Your task to perform on an android device: Open the calendar app, open the side menu, and click the "Day" option Image 0: 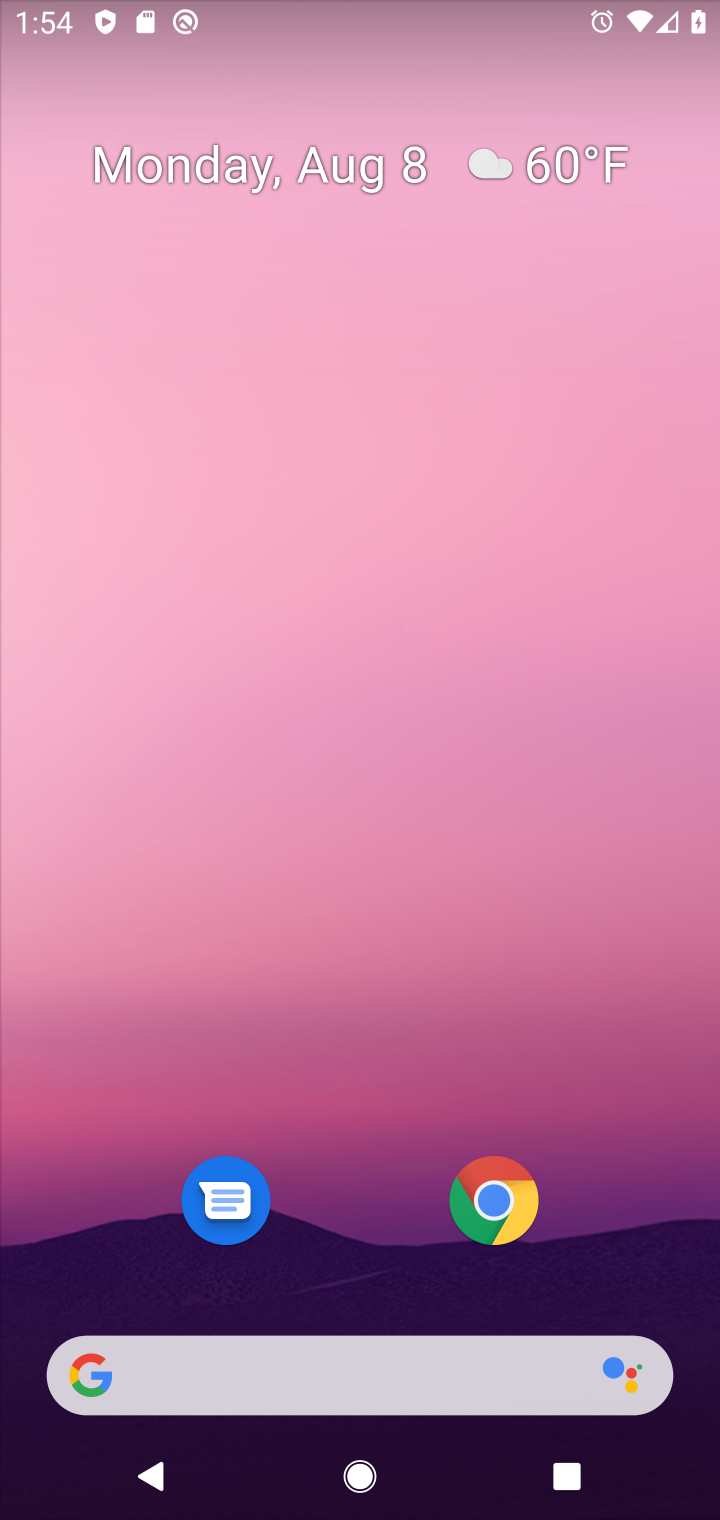
Step 0: press home button
Your task to perform on an android device: Open the calendar app, open the side menu, and click the "Day" option Image 1: 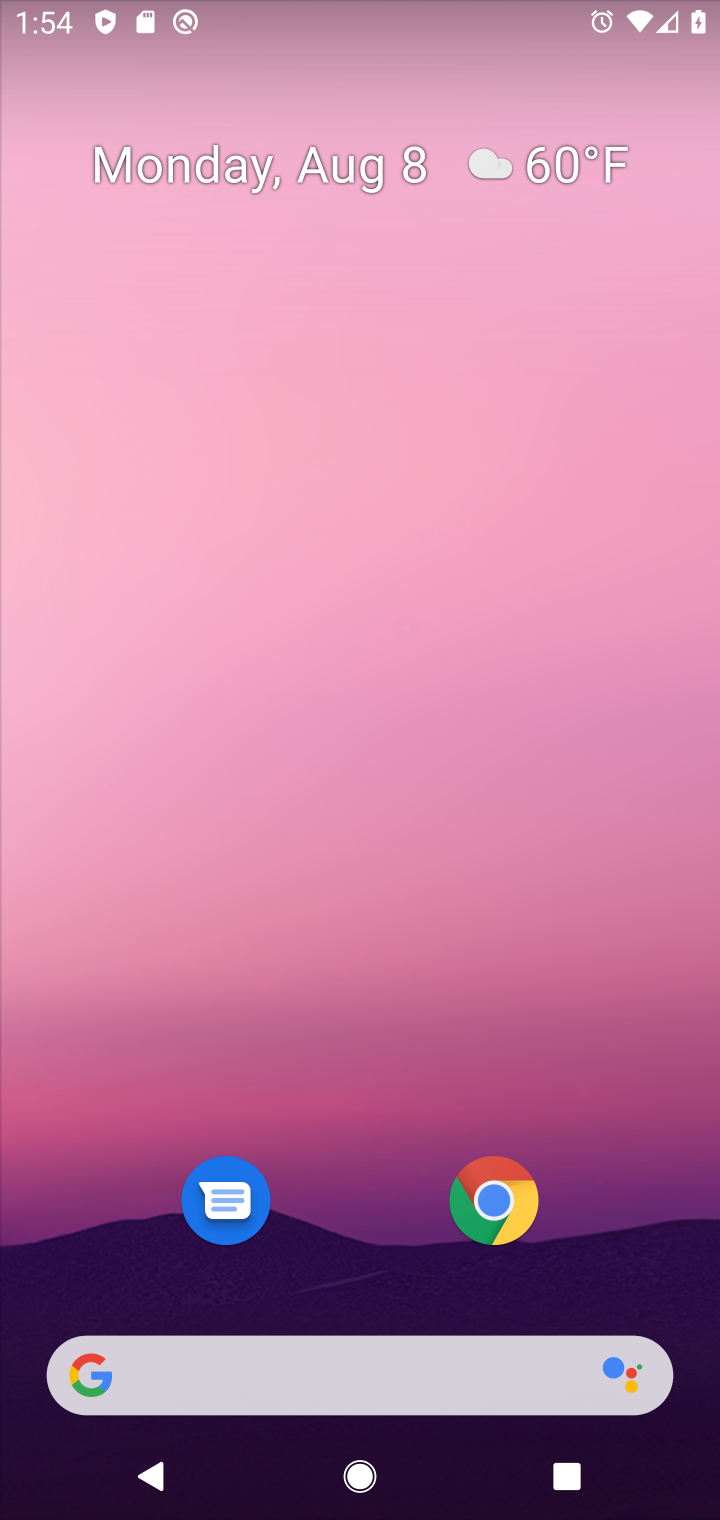
Step 1: drag from (365, 1263) to (447, 320)
Your task to perform on an android device: Open the calendar app, open the side menu, and click the "Day" option Image 2: 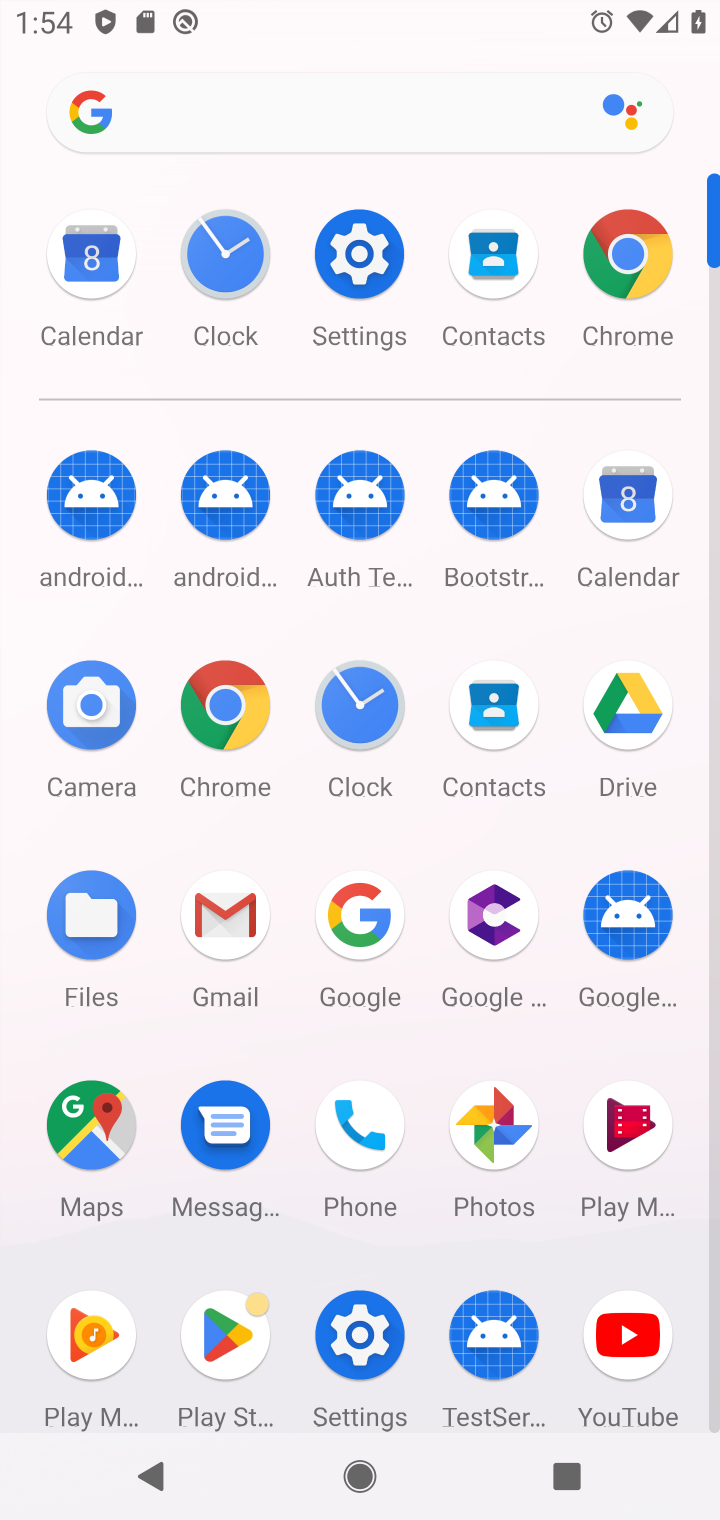
Step 2: click (615, 491)
Your task to perform on an android device: Open the calendar app, open the side menu, and click the "Day" option Image 3: 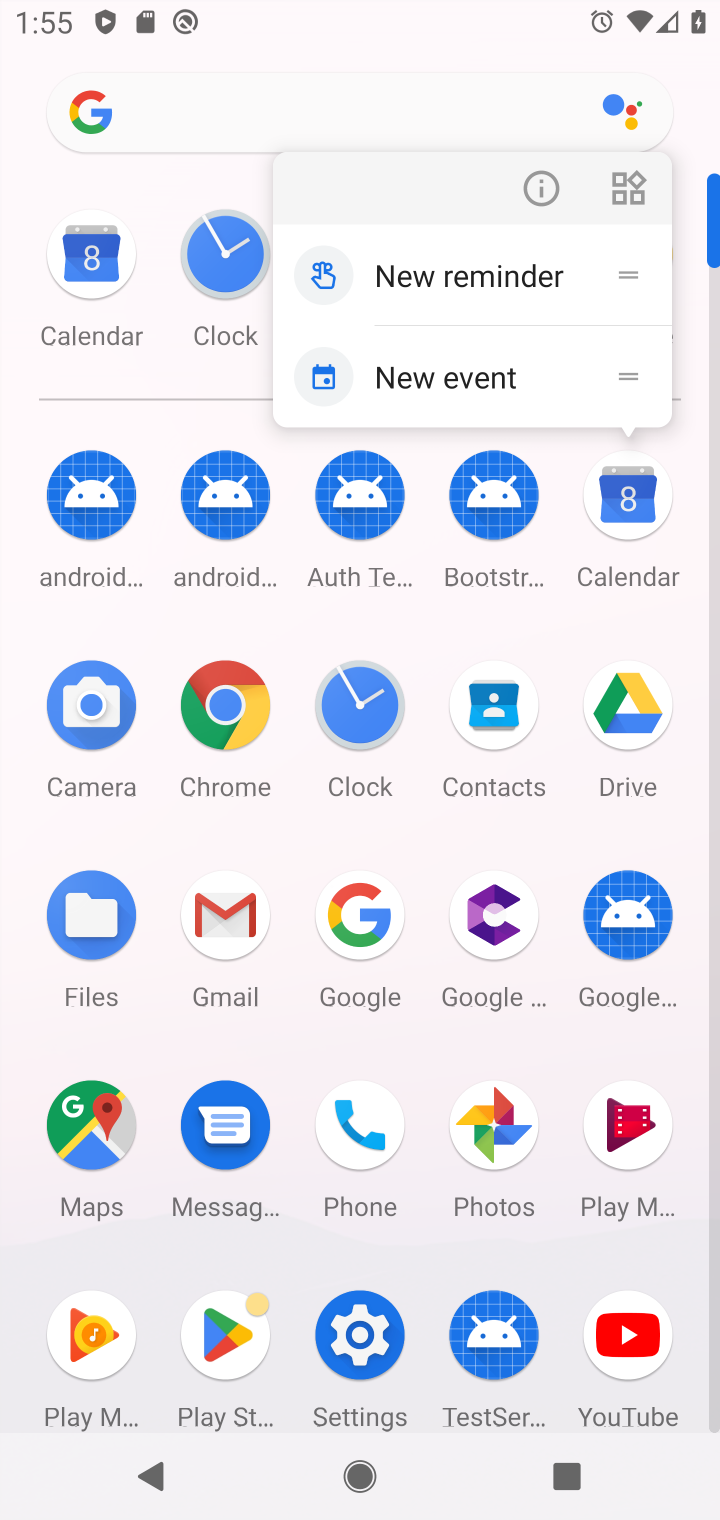
Step 3: click (625, 499)
Your task to perform on an android device: Open the calendar app, open the side menu, and click the "Day" option Image 4: 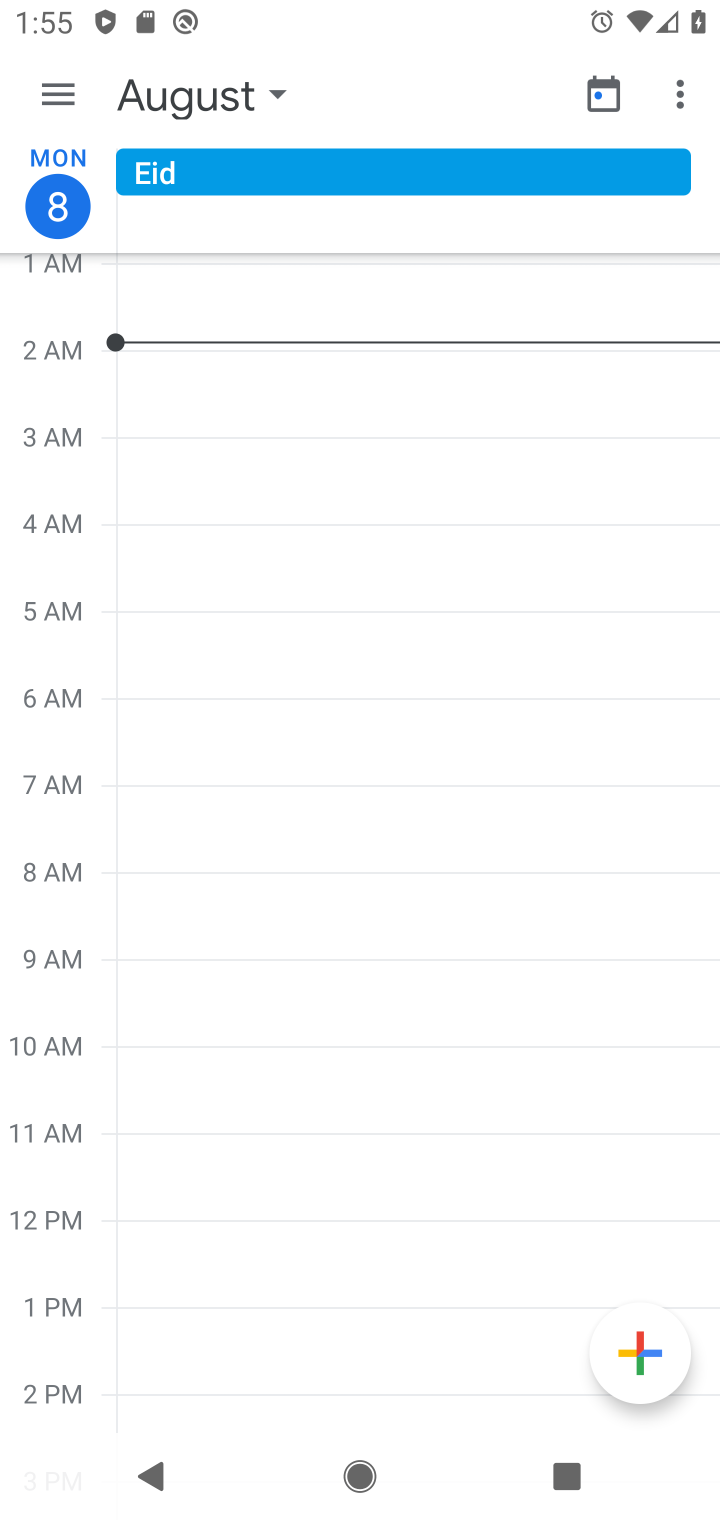
Step 4: click (62, 96)
Your task to perform on an android device: Open the calendar app, open the side menu, and click the "Day" option Image 5: 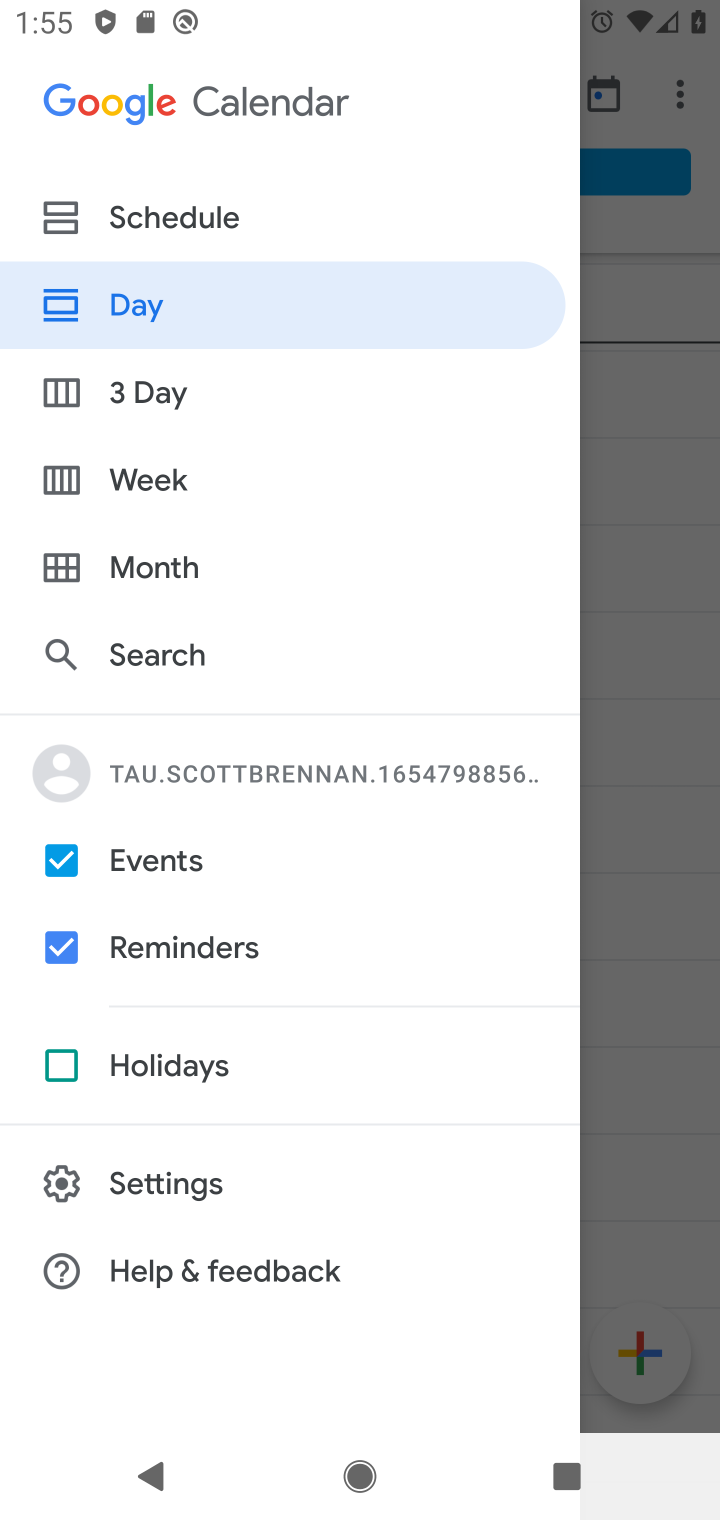
Step 5: click (144, 302)
Your task to perform on an android device: Open the calendar app, open the side menu, and click the "Day" option Image 6: 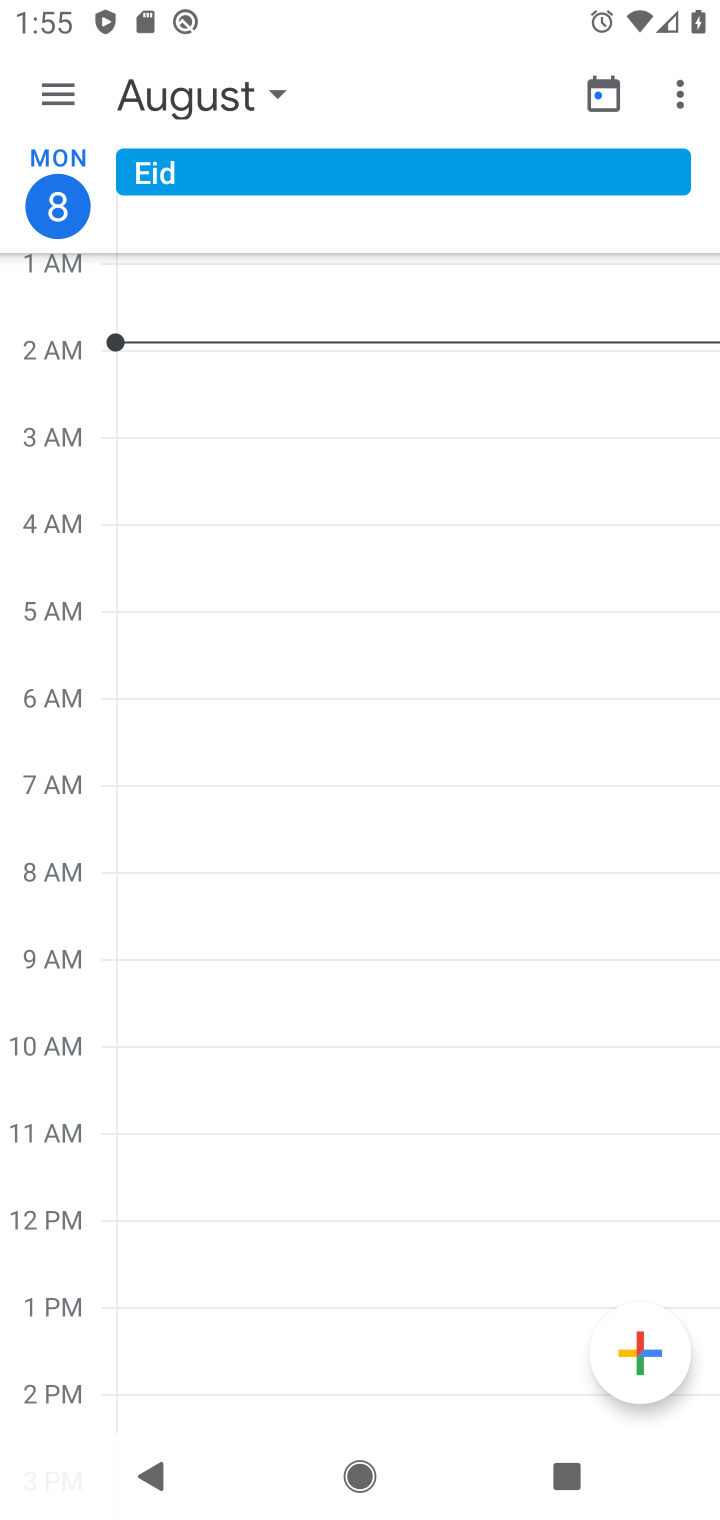
Step 6: task complete